Your task to perform on an android device: Open Amazon Image 0: 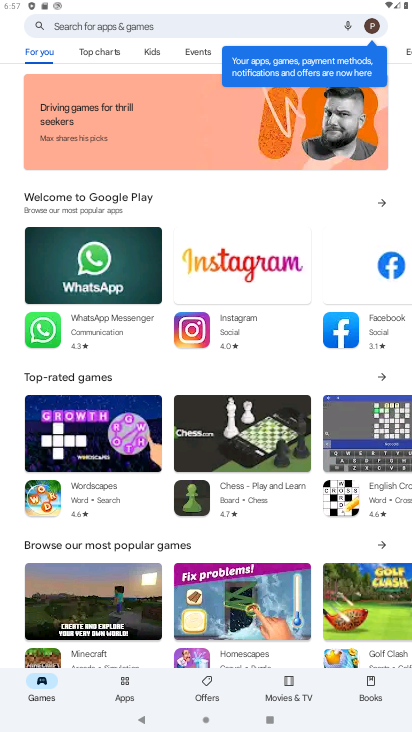
Step 0: press home button
Your task to perform on an android device: Open Amazon Image 1: 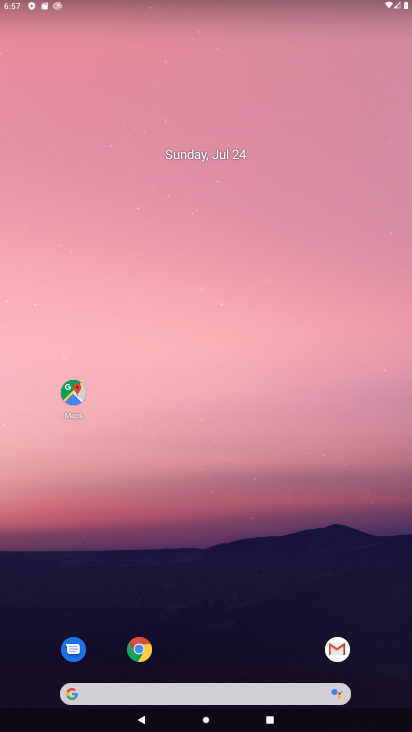
Step 1: click (147, 645)
Your task to perform on an android device: Open Amazon Image 2: 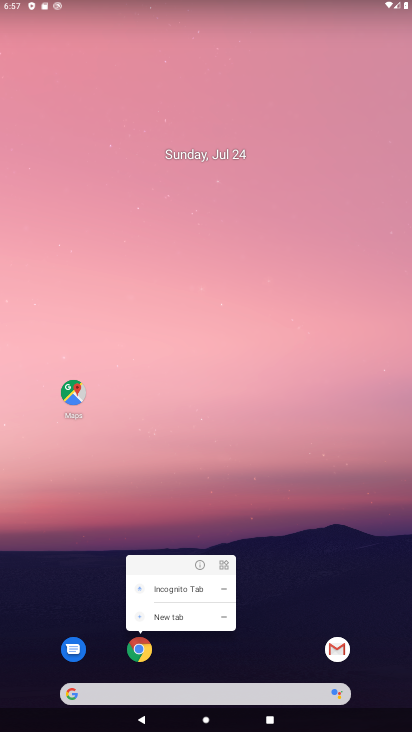
Step 2: click (144, 651)
Your task to perform on an android device: Open Amazon Image 3: 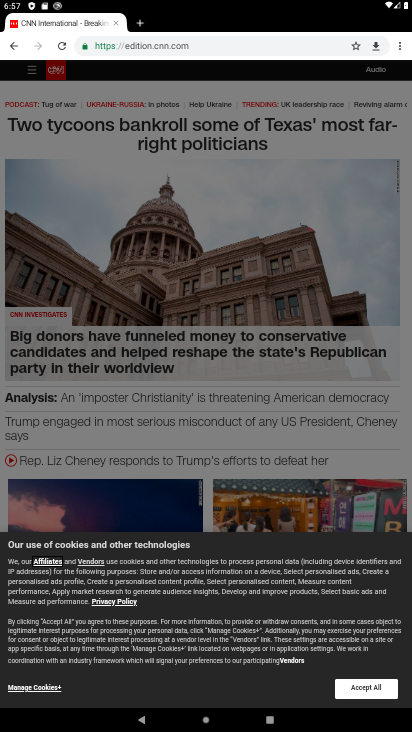
Step 3: click (142, 30)
Your task to perform on an android device: Open Amazon Image 4: 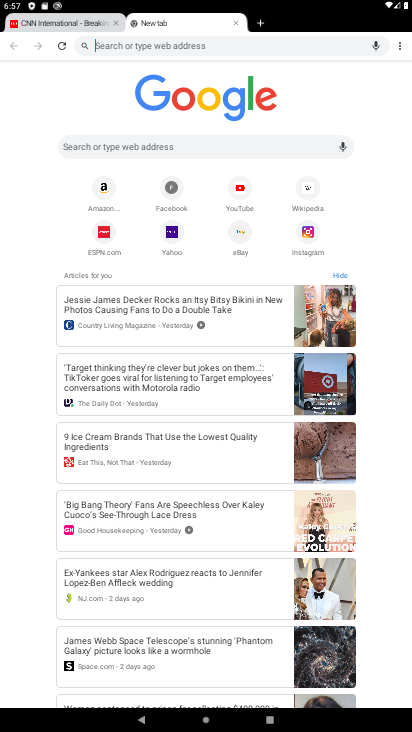
Step 4: click (103, 179)
Your task to perform on an android device: Open Amazon Image 5: 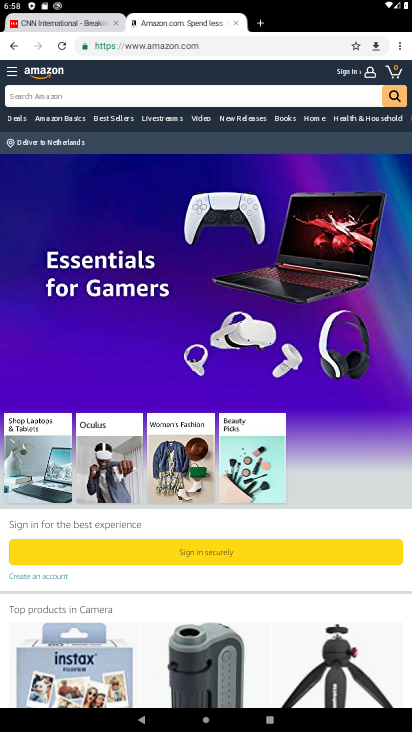
Step 5: task complete